Your task to perform on an android device: turn on priority inbox in the gmail app Image 0: 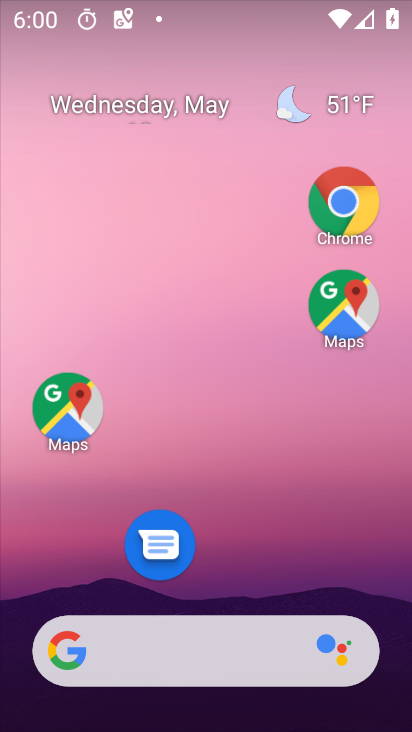
Step 0: drag from (263, 562) to (222, 146)
Your task to perform on an android device: turn on priority inbox in the gmail app Image 1: 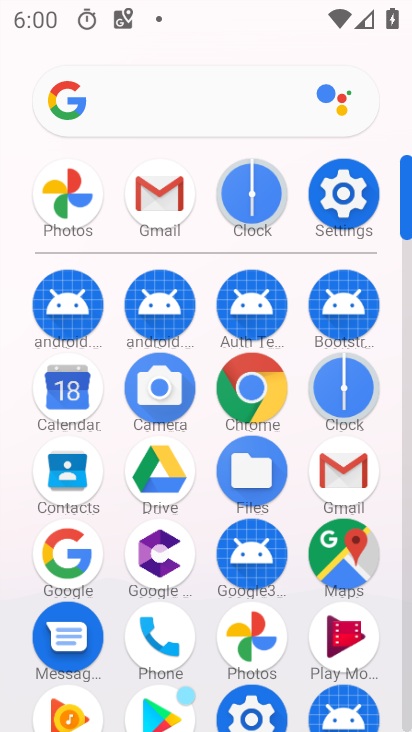
Step 1: click (149, 193)
Your task to perform on an android device: turn on priority inbox in the gmail app Image 2: 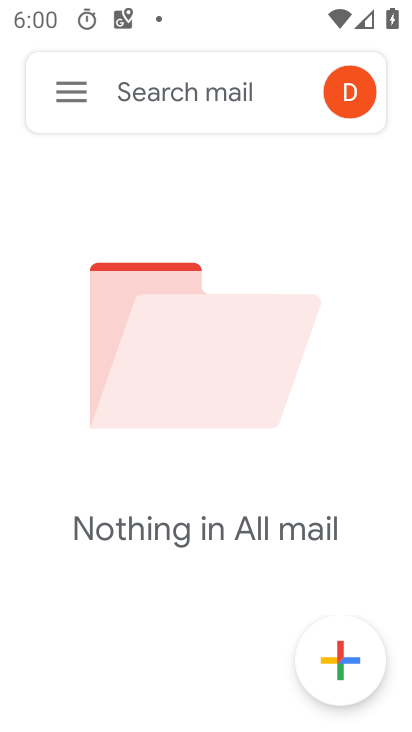
Step 2: click (67, 88)
Your task to perform on an android device: turn on priority inbox in the gmail app Image 3: 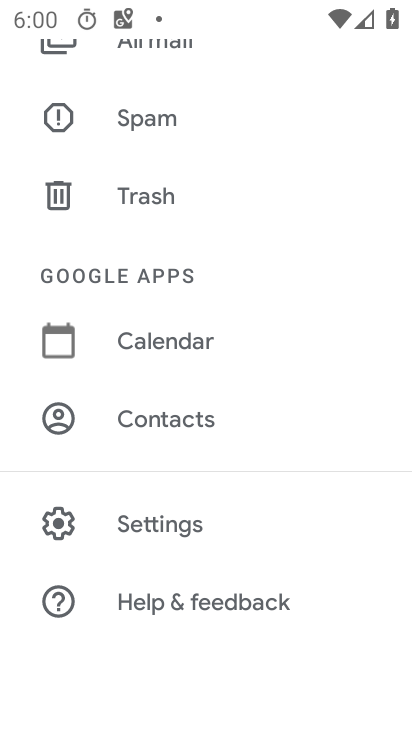
Step 3: click (163, 523)
Your task to perform on an android device: turn on priority inbox in the gmail app Image 4: 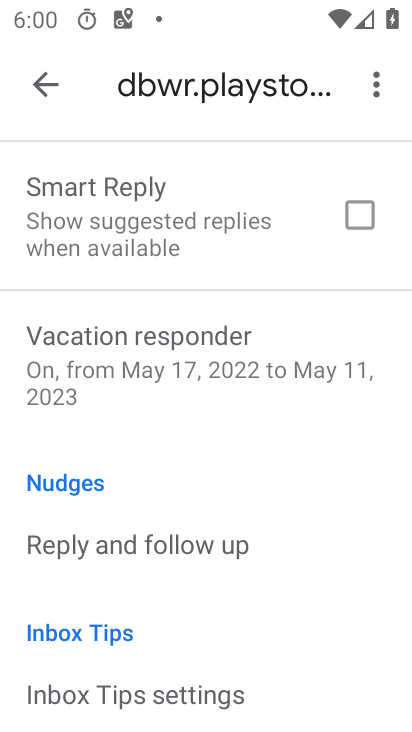
Step 4: drag from (200, 227) to (202, 572)
Your task to perform on an android device: turn on priority inbox in the gmail app Image 5: 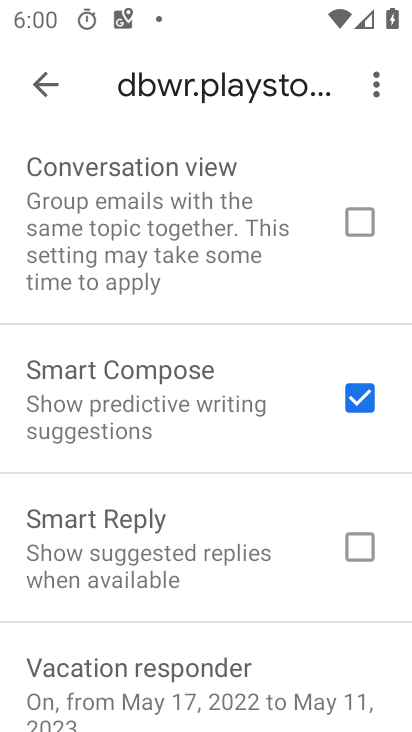
Step 5: drag from (150, 221) to (103, 679)
Your task to perform on an android device: turn on priority inbox in the gmail app Image 6: 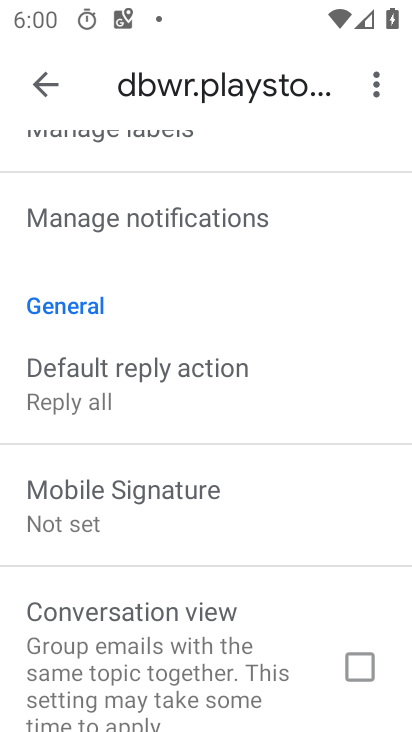
Step 6: drag from (130, 273) to (81, 716)
Your task to perform on an android device: turn on priority inbox in the gmail app Image 7: 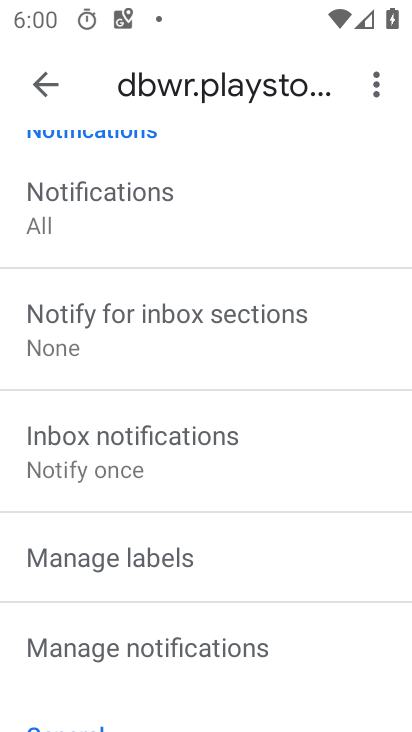
Step 7: drag from (153, 338) to (165, 707)
Your task to perform on an android device: turn on priority inbox in the gmail app Image 8: 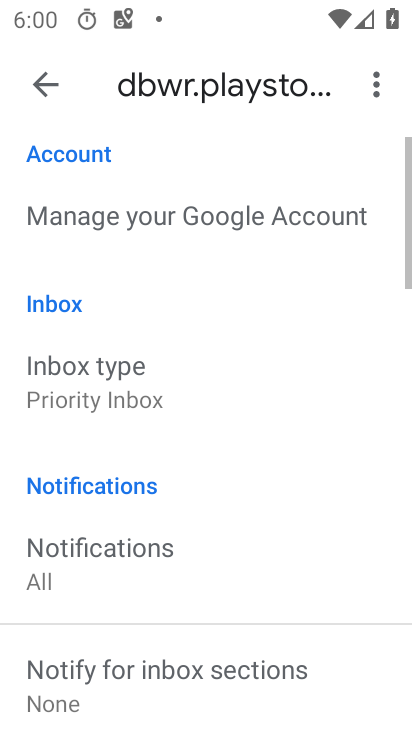
Step 8: click (112, 396)
Your task to perform on an android device: turn on priority inbox in the gmail app Image 9: 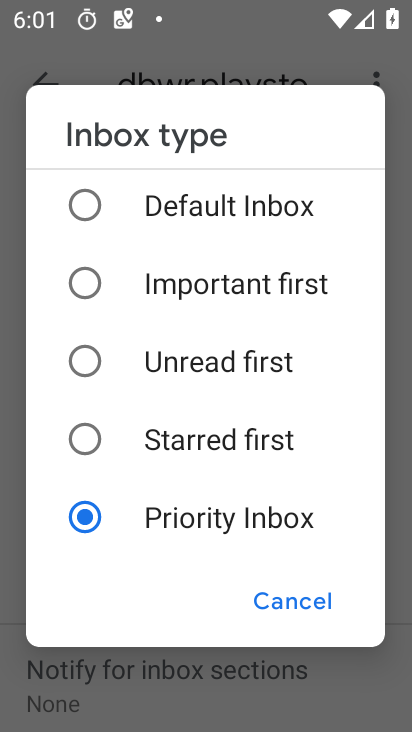
Step 9: task complete